Your task to perform on an android device: Open Google Maps and go to "Timeline" Image 0: 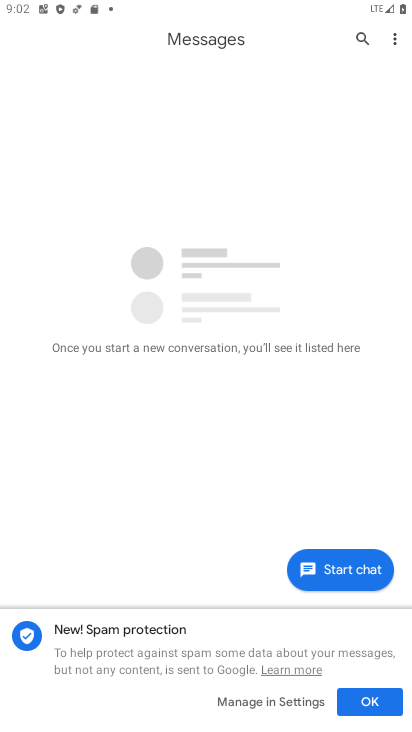
Step 0: press home button
Your task to perform on an android device: Open Google Maps and go to "Timeline" Image 1: 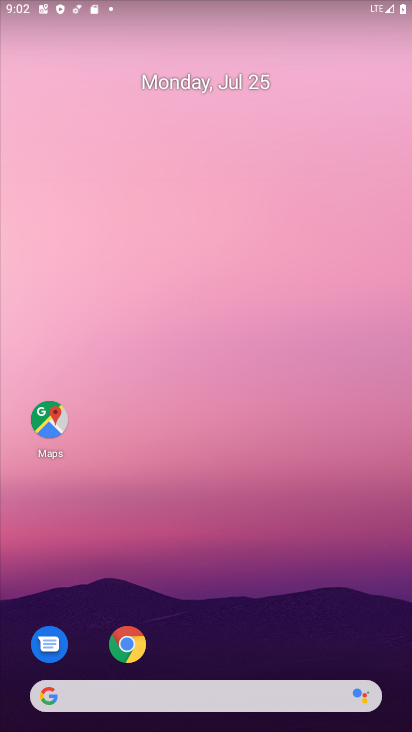
Step 1: drag from (273, 615) to (260, 175)
Your task to perform on an android device: Open Google Maps and go to "Timeline" Image 2: 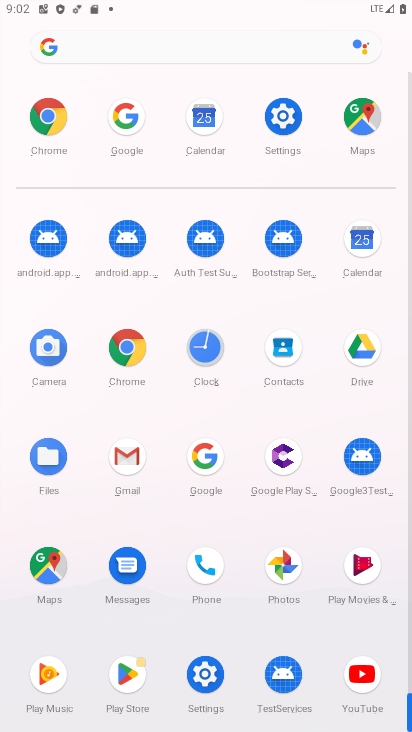
Step 2: click (36, 586)
Your task to perform on an android device: Open Google Maps and go to "Timeline" Image 3: 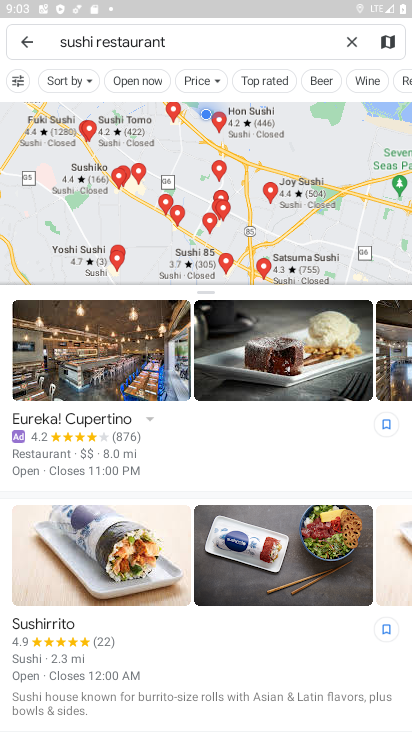
Step 3: press back button
Your task to perform on an android device: Open Google Maps and go to "Timeline" Image 4: 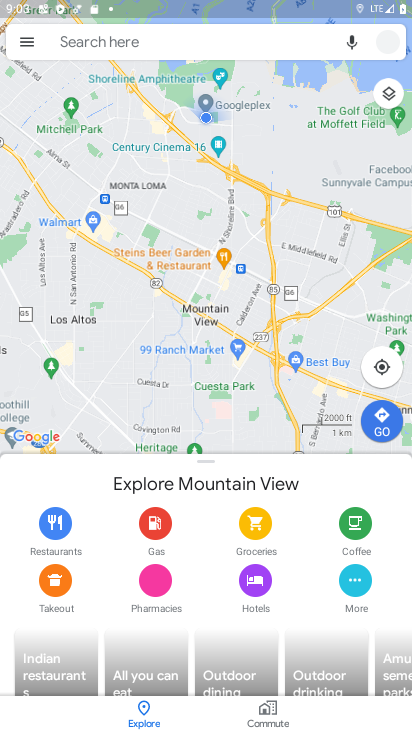
Step 4: click (26, 47)
Your task to perform on an android device: Open Google Maps and go to "Timeline" Image 5: 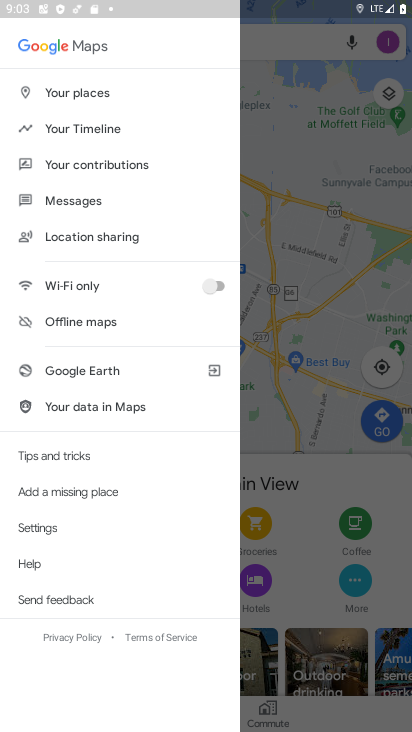
Step 5: click (119, 125)
Your task to perform on an android device: Open Google Maps and go to "Timeline" Image 6: 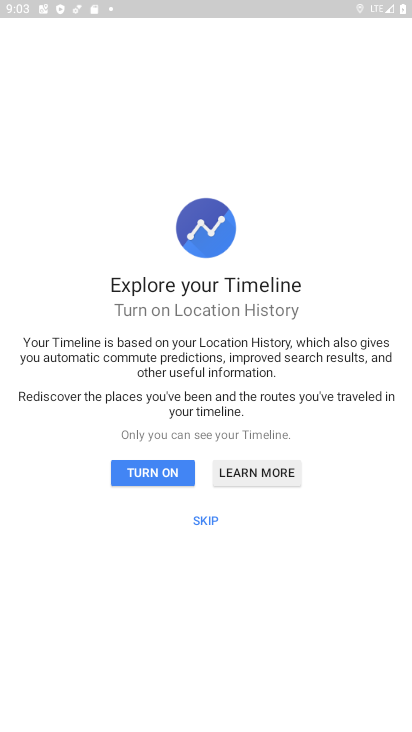
Step 6: click (217, 518)
Your task to perform on an android device: Open Google Maps and go to "Timeline" Image 7: 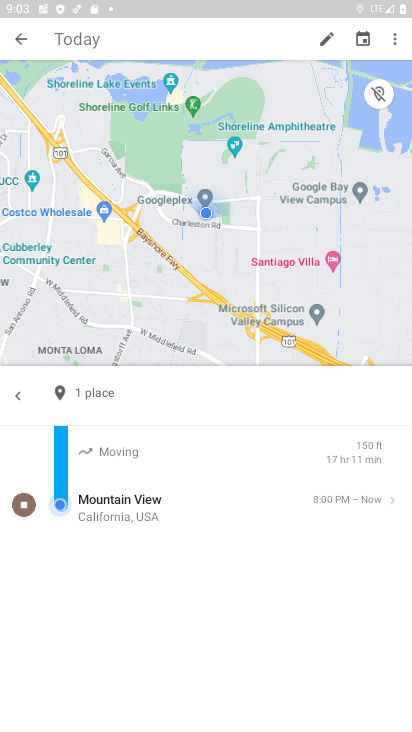
Step 7: task complete